Your task to perform on an android device: Go to Maps Image 0: 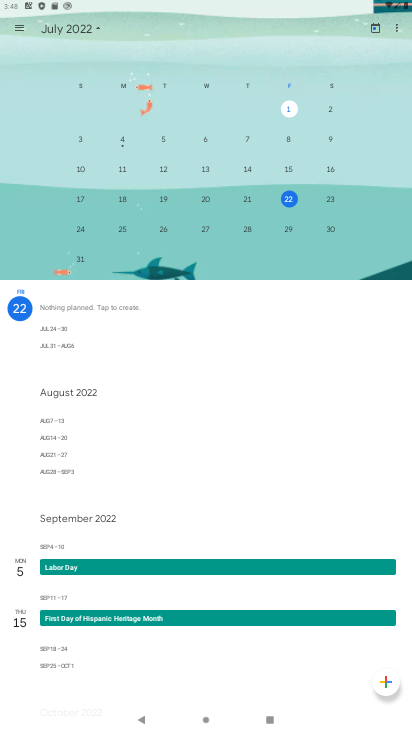
Step 0: press home button
Your task to perform on an android device: Go to Maps Image 1: 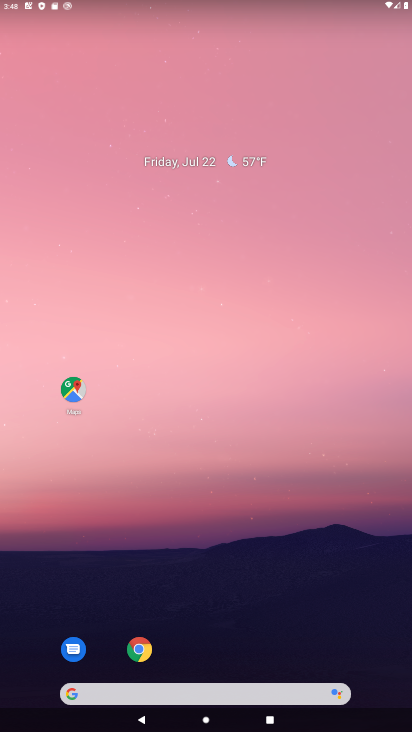
Step 1: click (79, 388)
Your task to perform on an android device: Go to Maps Image 2: 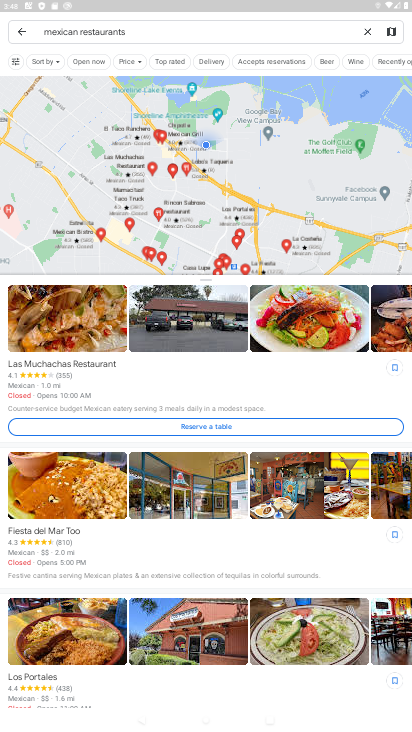
Step 2: click (23, 30)
Your task to perform on an android device: Go to Maps Image 3: 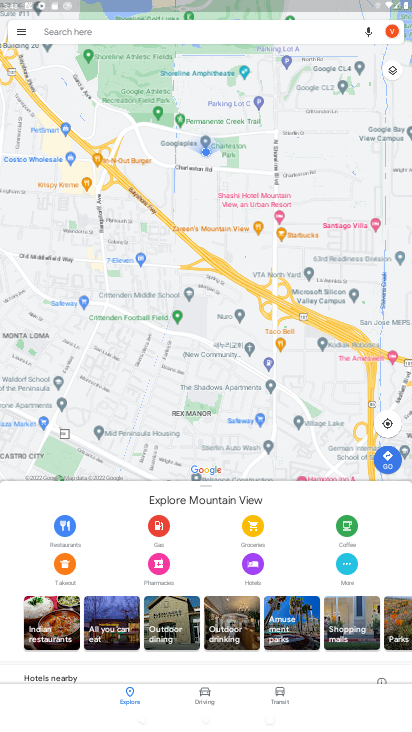
Step 3: task complete